Your task to perform on an android device: see creations saved in the google photos Image 0: 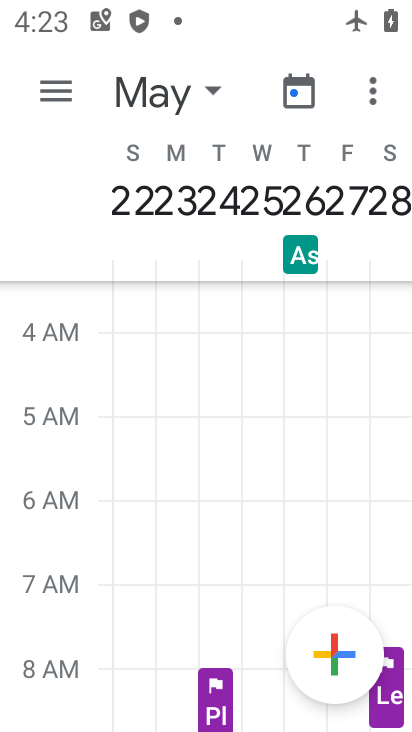
Step 0: press back button
Your task to perform on an android device: see creations saved in the google photos Image 1: 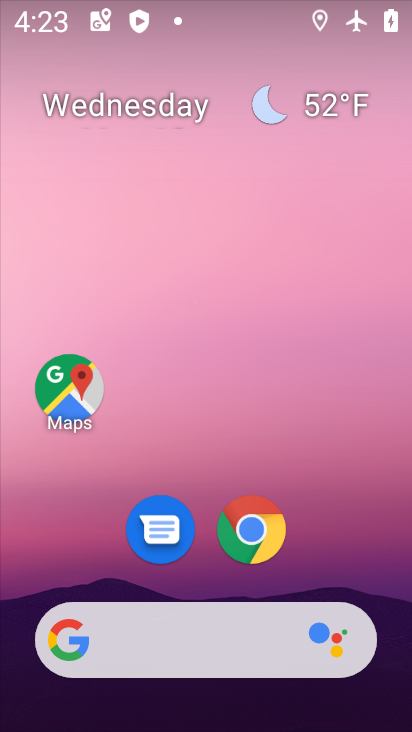
Step 1: drag from (323, 520) to (237, 82)
Your task to perform on an android device: see creations saved in the google photos Image 2: 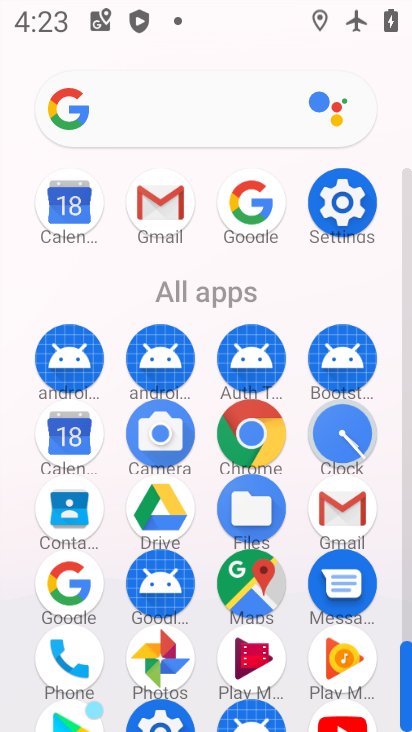
Step 2: drag from (202, 498) to (214, 247)
Your task to perform on an android device: see creations saved in the google photos Image 3: 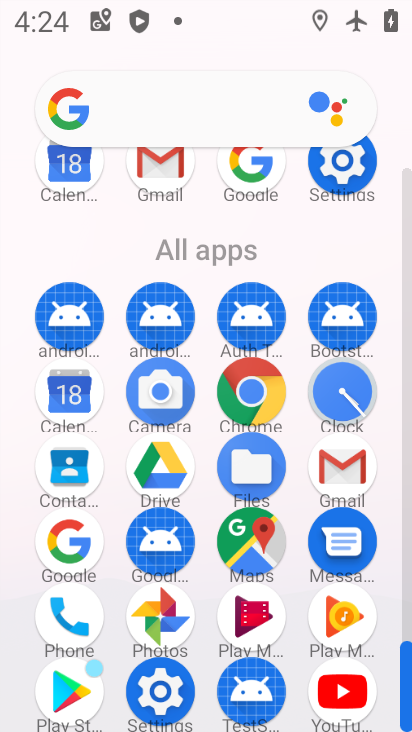
Step 3: click (162, 614)
Your task to perform on an android device: see creations saved in the google photos Image 4: 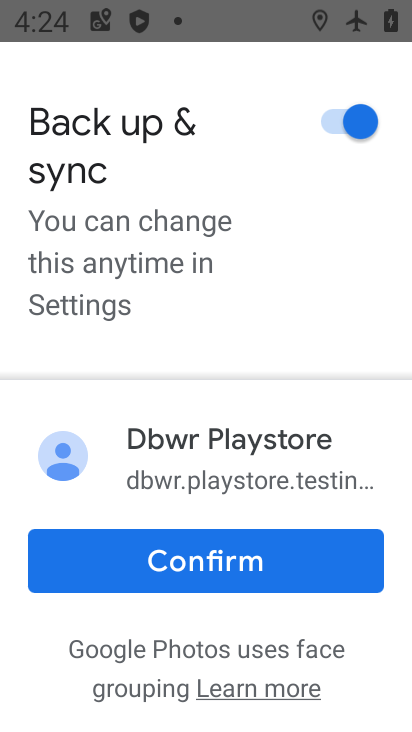
Step 4: click (170, 552)
Your task to perform on an android device: see creations saved in the google photos Image 5: 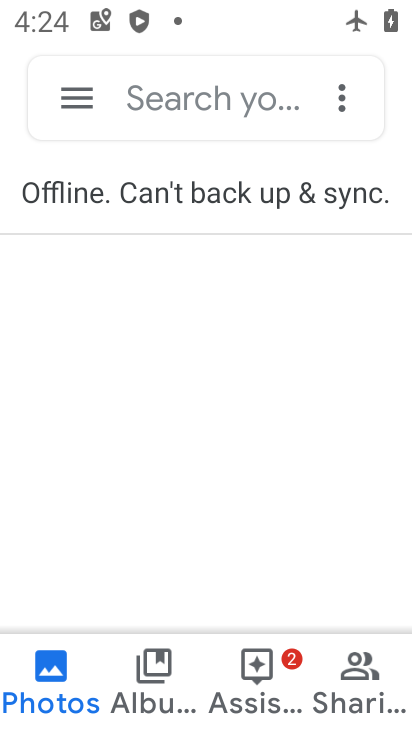
Step 5: click (229, 104)
Your task to perform on an android device: see creations saved in the google photos Image 6: 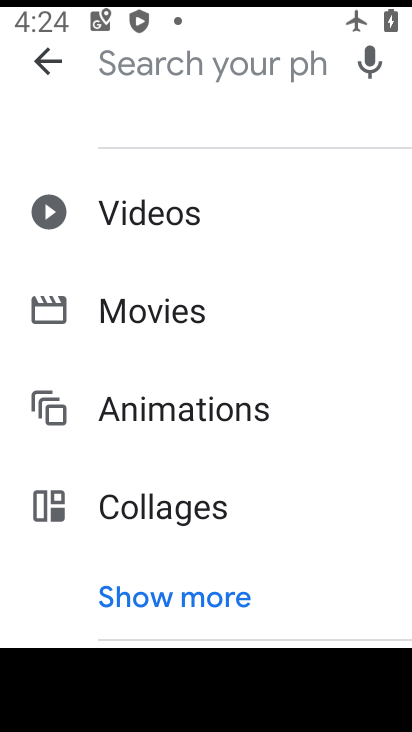
Step 6: click (137, 589)
Your task to perform on an android device: see creations saved in the google photos Image 7: 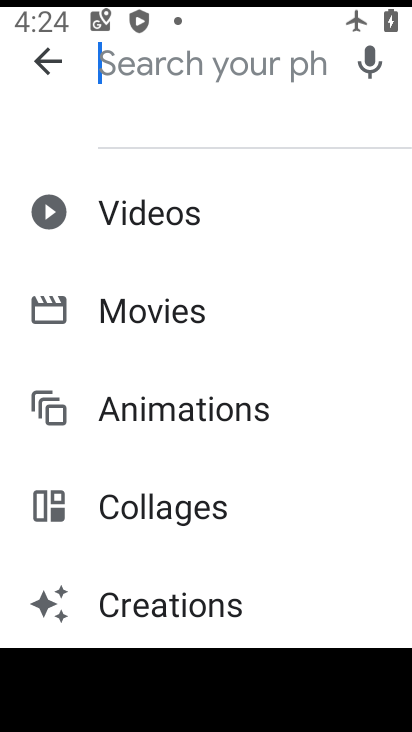
Step 7: drag from (147, 568) to (194, 324)
Your task to perform on an android device: see creations saved in the google photos Image 8: 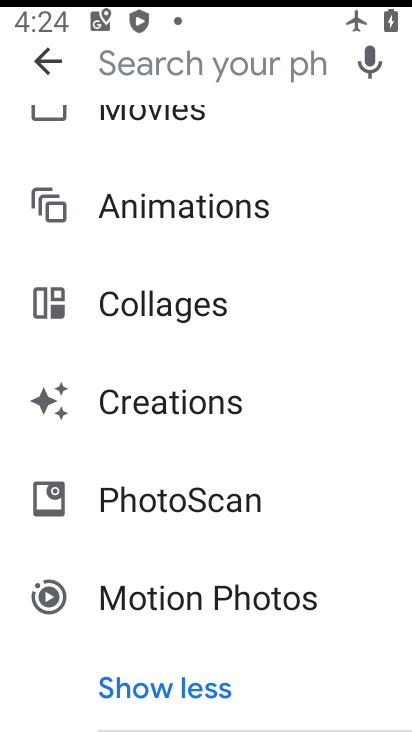
Step 8: click (211, 400)
Your task to perform on an android device: see creations saved in the google photos Image 9: 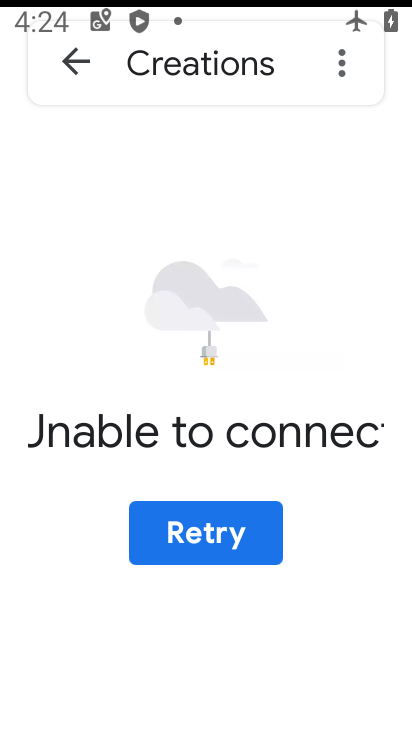
Step 9: click (189, 532)
Your task to perform on an android device: see creations saved in the google photos Image 10: 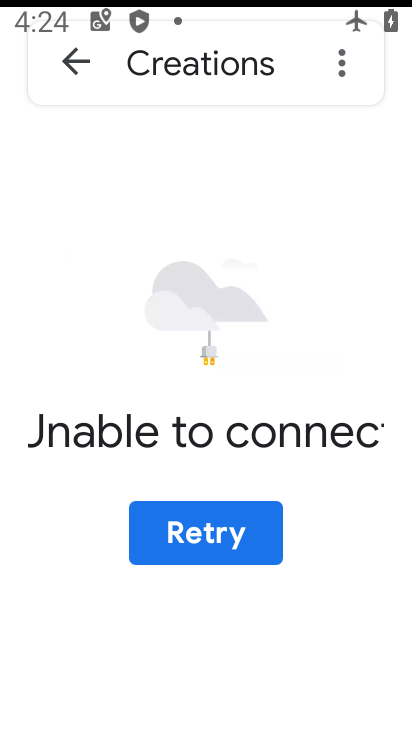
Step 10: click (189, 530)
Your task to perform on an android device: see creations saved in the google photos Image 11: 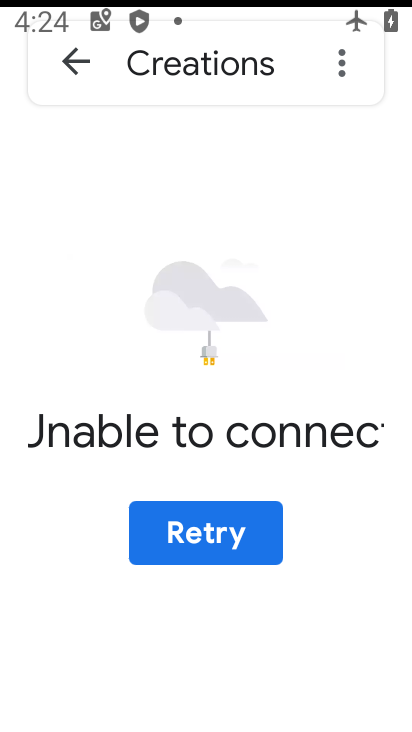
Step 11: task complete